Your task to perform on an android device: Open calendar and show me the third week of next month Image 0: 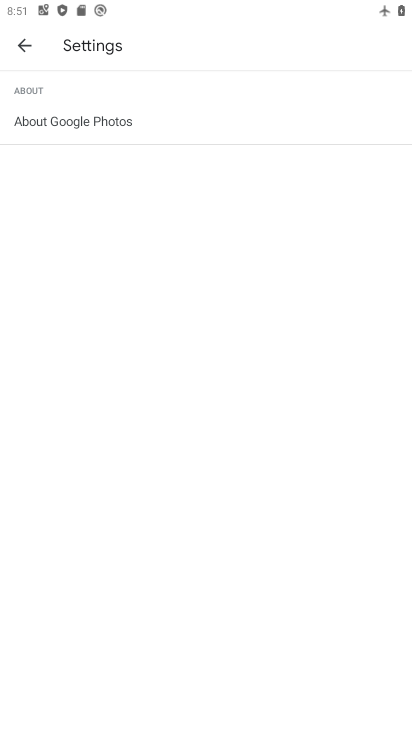
Step 0: press home button
Your task to perform on an android device: Open calendar and show me the third week of next month Image 1: 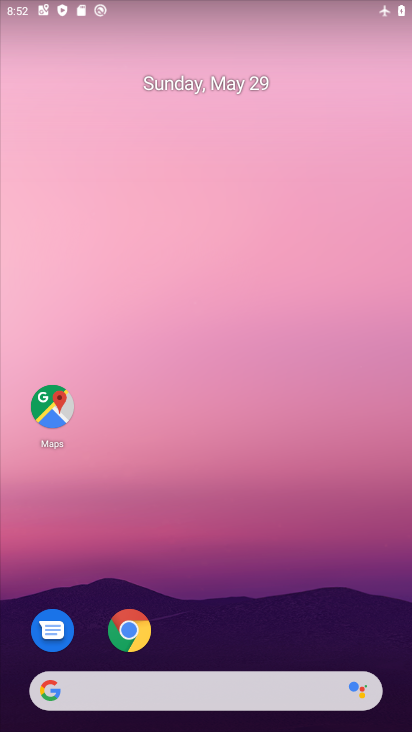
Step 1: drag from (232, 644) to (121, 51)
Your task to perform on an android device: Open calendar and show me the third week of next month Image 2: 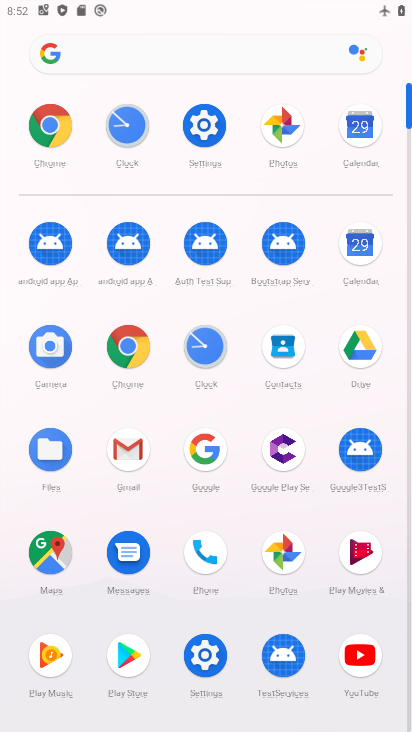
Step 2: click (365, 266)
Your task to perform on an android device: Open calendar and show me the third week of next month Image 3: 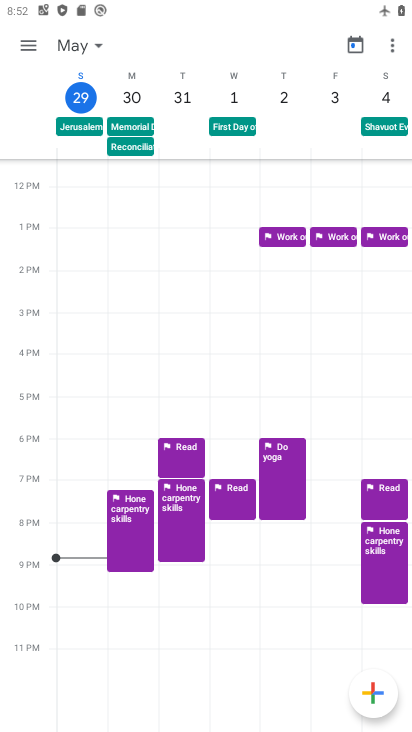
Step 3: task complete